Your task to perform on an android device: turn pop-ups off in chrome Image 0: 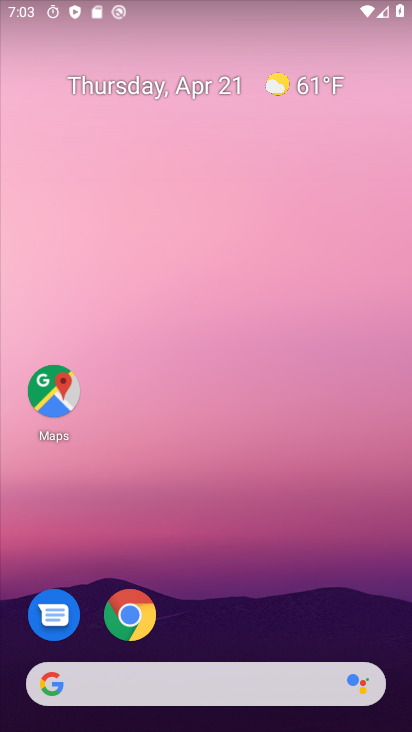
Step 0: click (125, 614)
Your task to perform on an android device: turn pop-ups off in chrome Image 1: 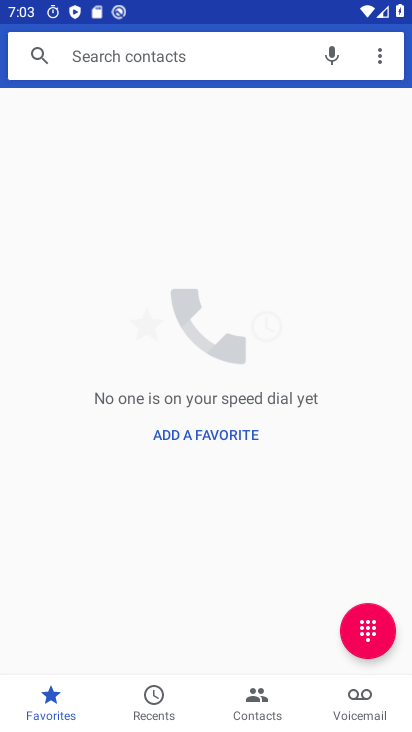
Step 1: press home button
Your task to perform on an android device: turn pop-ups off in chrome Image 2: 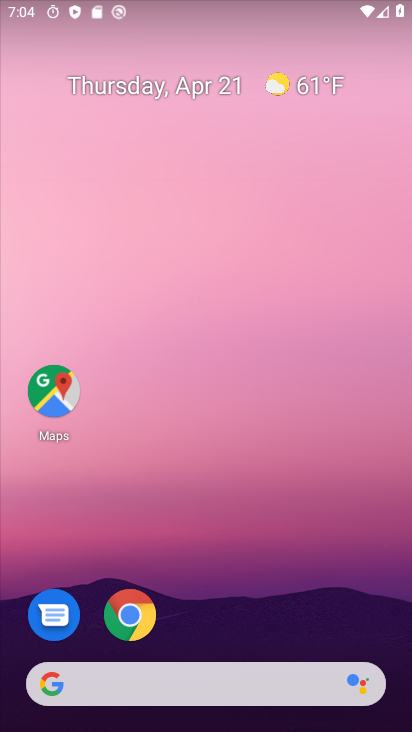
Step 2: click (178, 688)
Your task to perform on an android device: turn pop-ups off in chrome Image 3: 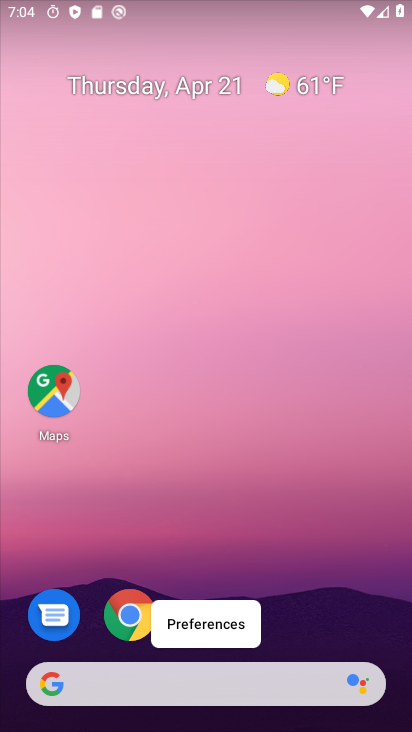
Step 3: click (260, 477)
Your task to perform on an android device: turn pop-ups off in chrome Image 4: 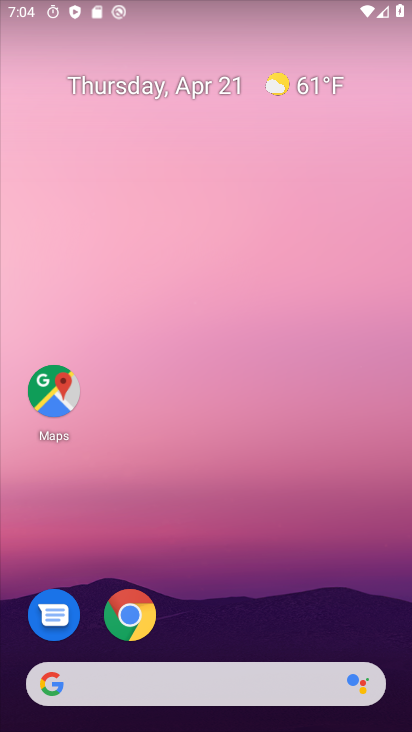
Step 4: click (129, 606)
Your task to perform on an android device: turn pop-ups off in chrome Image 5: 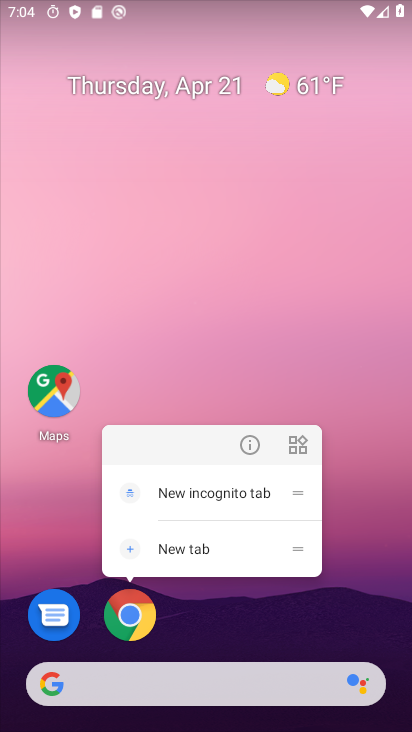
Step 5: click (254, 439)
Your task to perform on an android device: turn pop-ups off in chrome Image 6: 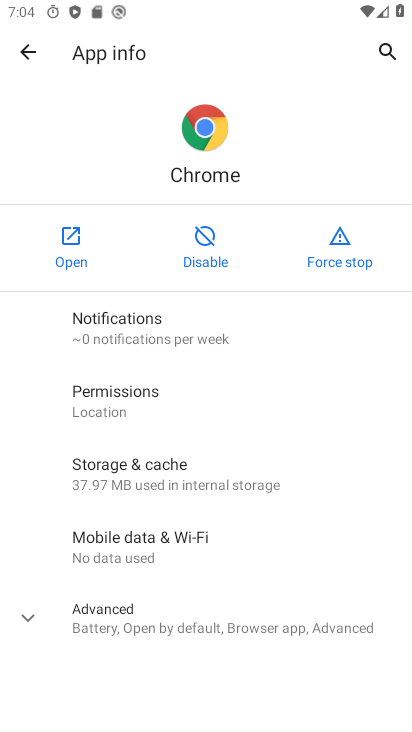
Step 6: click (81, 258)
Your task to perform on an android device: turn pop-ups off in chrome Image 7: 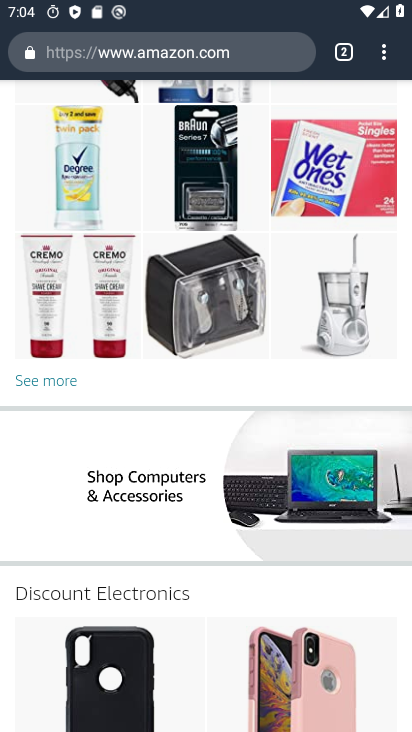
Step 7: drag from (382, 42) to (213, 684)
Your task to perform on an android device: turn pop-ups off in chrome Image 8: 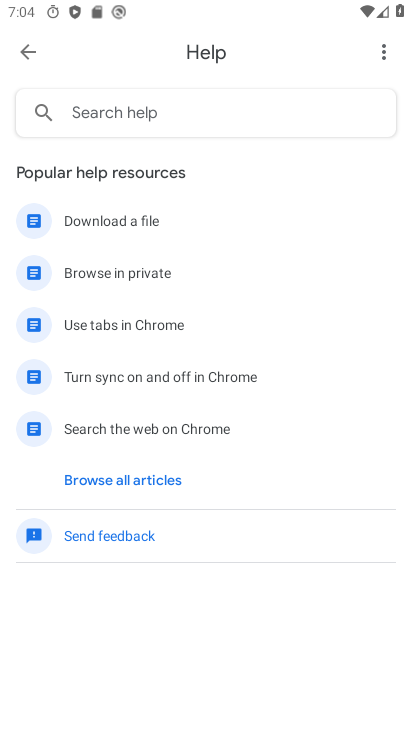
Step 8: click (19, 46)
Your task to perform on an android device: turn pop-ups off in chrome Image 9: 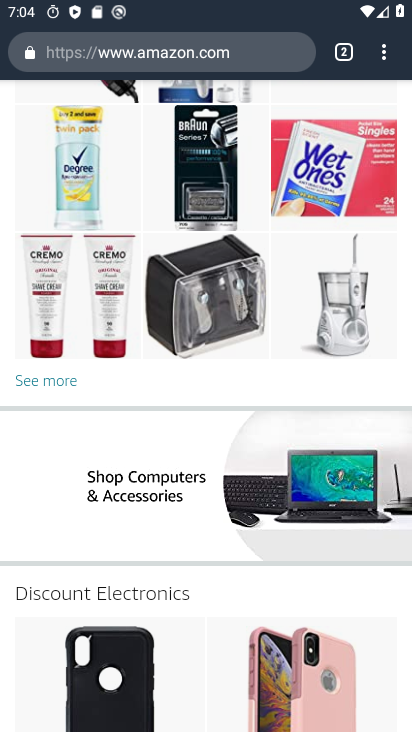
Step 9: drag from (379, 58) to (277, 667)
Your task to perform on an android device: turn pop-ups off in chrome Image 10: 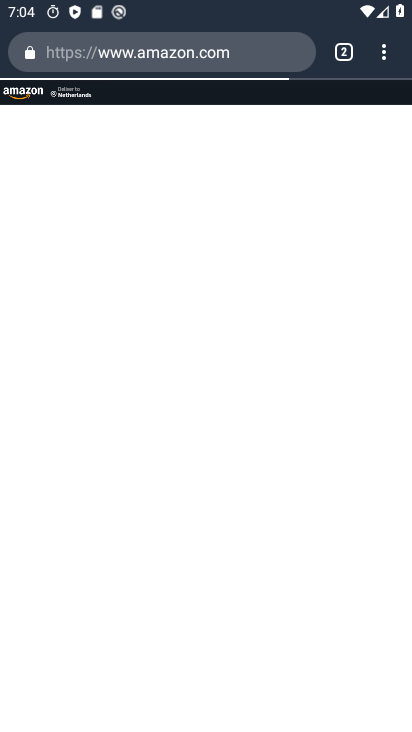
Step 10: press back button
Your task to perform on an android device: turn pop-ups off in chrome Image 11: 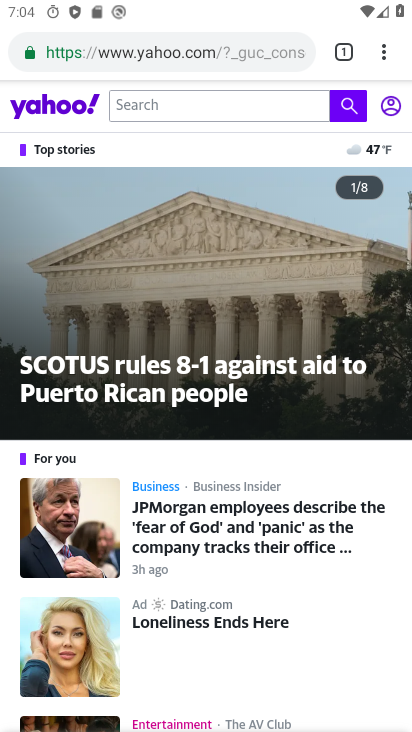
Step 11: drag from (379, 52) to (228, 681)
Your task to perform on an android device: turn pop-ups off in chrome Image 12: 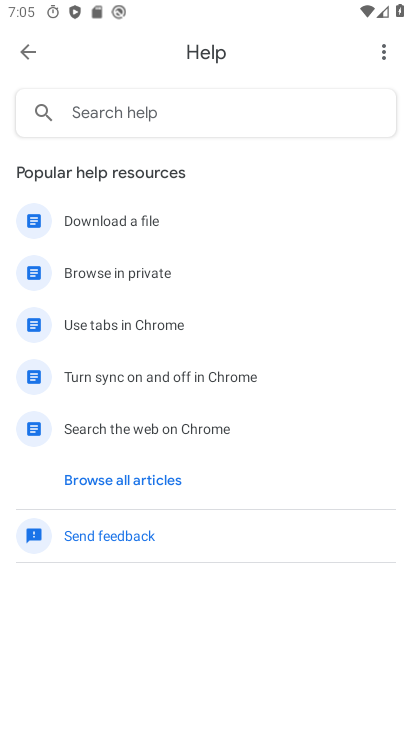
Step 12: click (19, 43)
Your task to perform on an android device: turn pop-ups off in chrome Image 13: 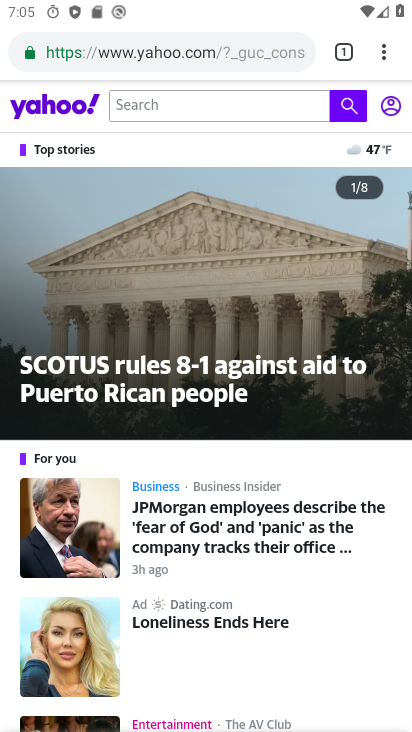
Step 13: drag from (388, 60) to (218, 658)
Your task to perform on an android device: turn pop-ups off in chrome Image 14: 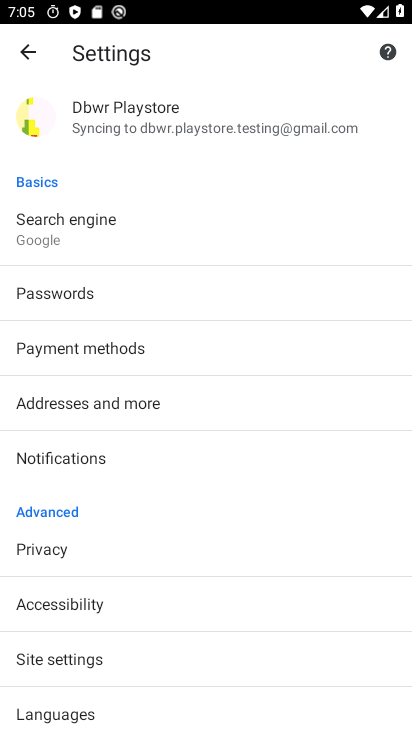
Step 14: click (100, 666)
Your task to perform on an android device: turn pop-ups off in chrome Image 15: 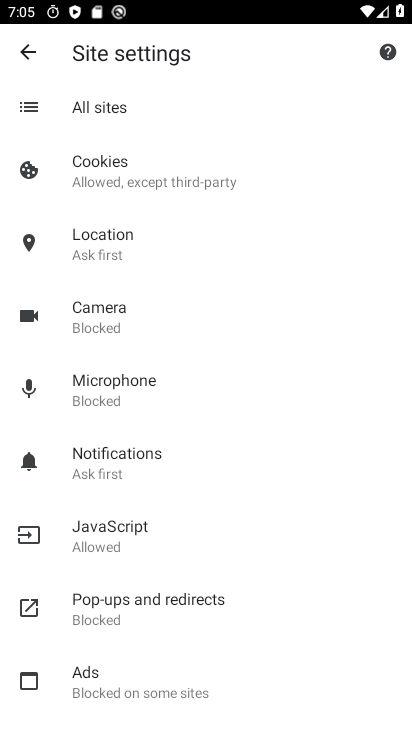
Step 15: click (127, 619)
Your task to perform on an android device: turn pop-ups off in chrome Image 16: 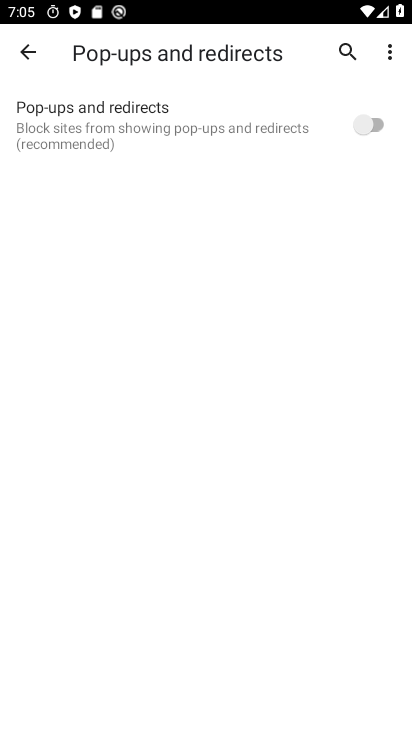
Step 16: task complete